Your task to perform on an android device: change notifications settings Image 0: 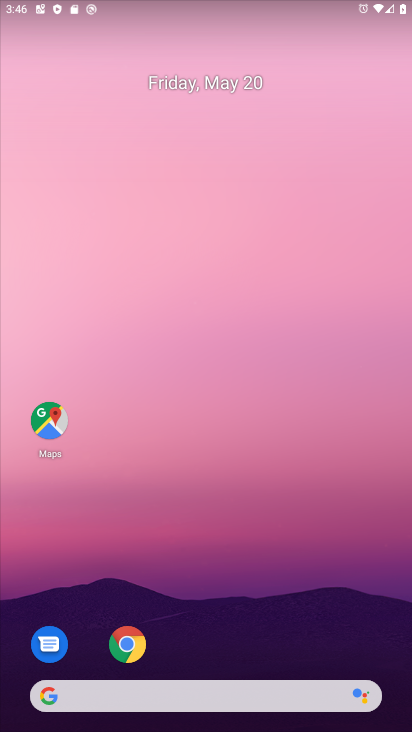
Step 0: drag from (297, 617) to (229, 173)
Your task to perform on an android device: change notifications settings Image 1: 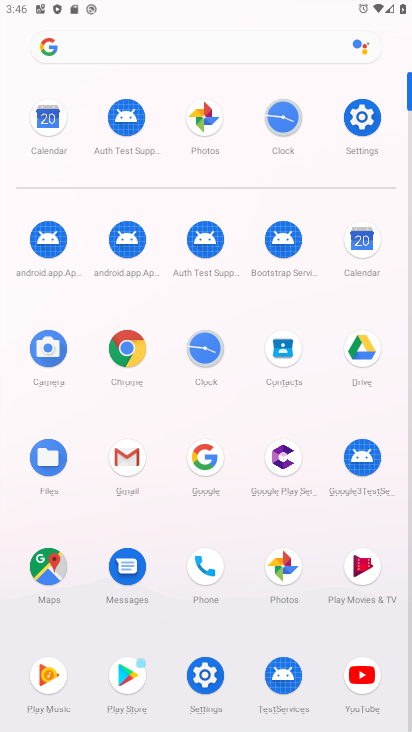
Step 1: click (337, 150)
Your task to perform on an android device: change notifications settings Image 2: 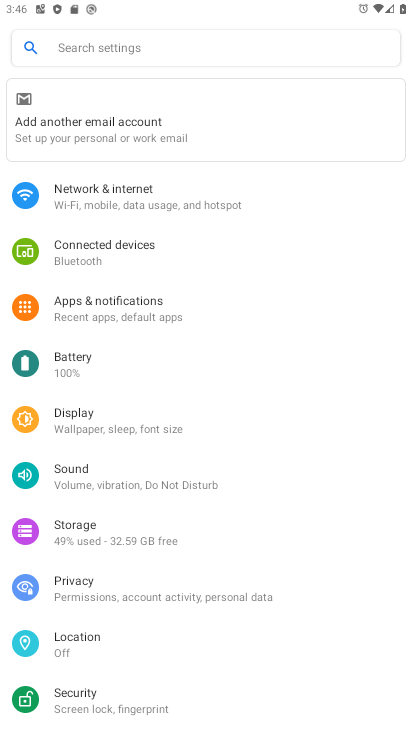
Step 2: click (113, 326)
Your task to perform on an android device: change notifications settings Image 3: 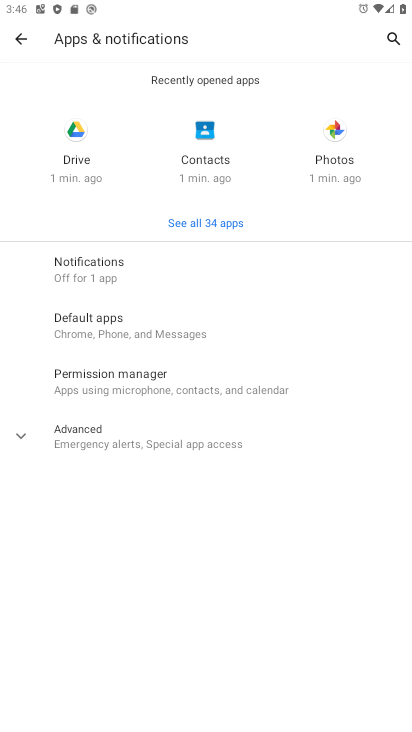
Step 3: click (113, 290)
Your task to perform on an android device: change notifications settings Image 4: 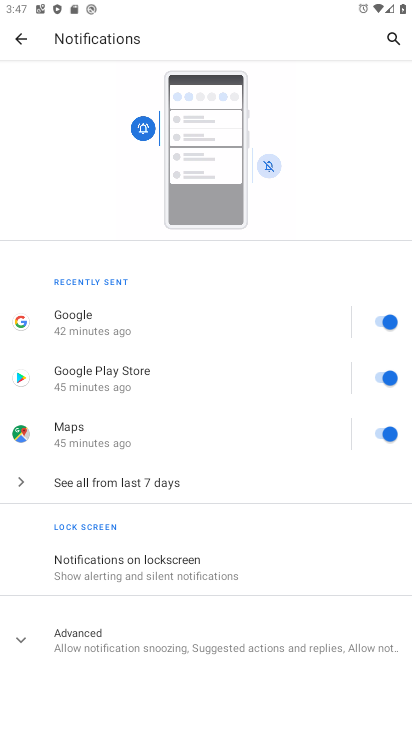
Step 4: click (223, 626)
Your task to perform on an android device: change notifications settings Image 5: 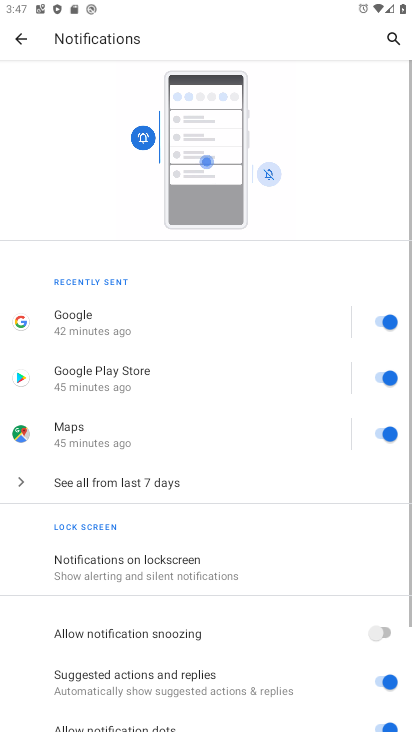
Step 5: task complete